Your task to perform on an android device: Do I have any events this weekend? Image 0: 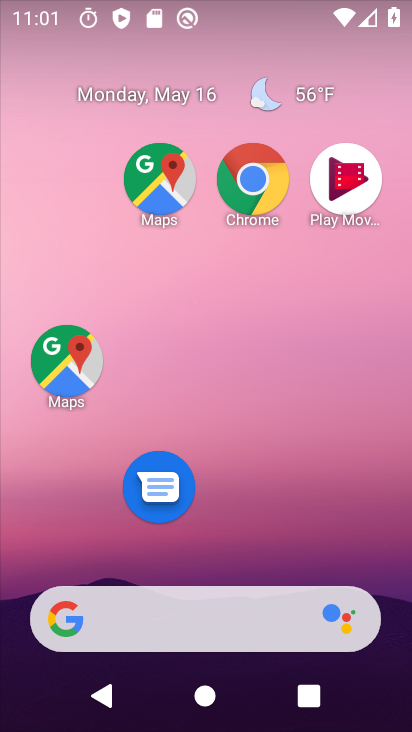
Step 0: click (252, 215)
Your task to perform on an android device: Do I have any events this weekend? Image 1: 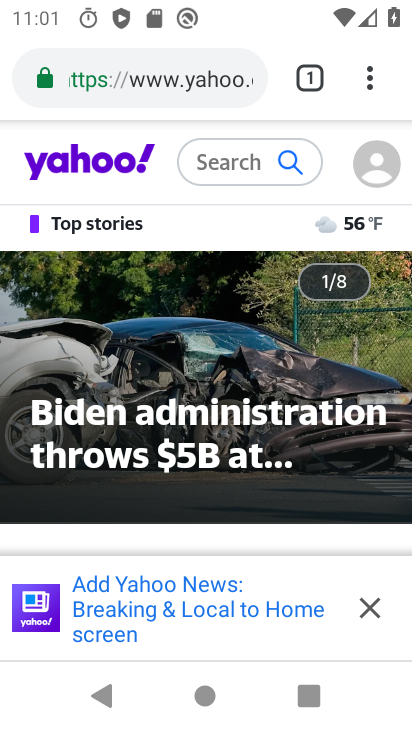
Step 1: press home button
Your task to perform on an android device: Do I have any events this weekend? Image 2: 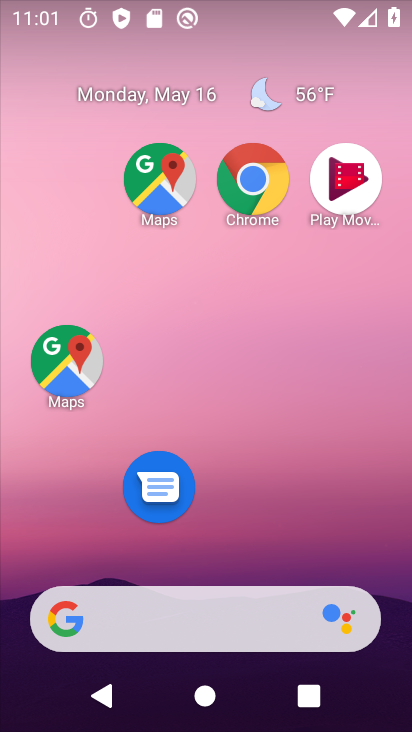
Step 2: drag from (228, 563) to (156, 10)
Your task to perform on an android device: Do I have any events this weekend? Image 3: 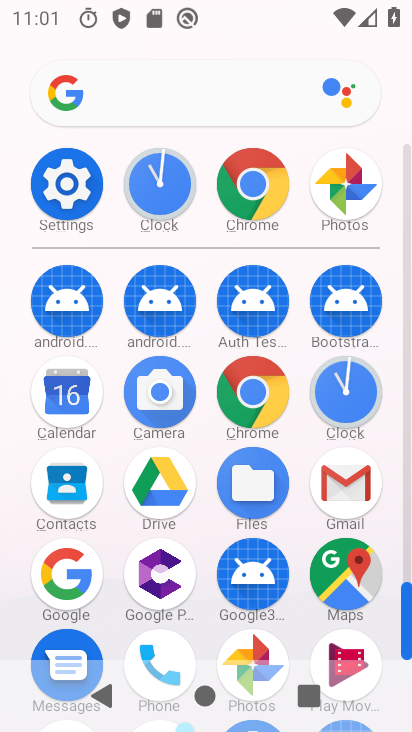
Step 3: click (68, 180)
Your task to perform on an android device: Do I have any events this weekend? Image 4: 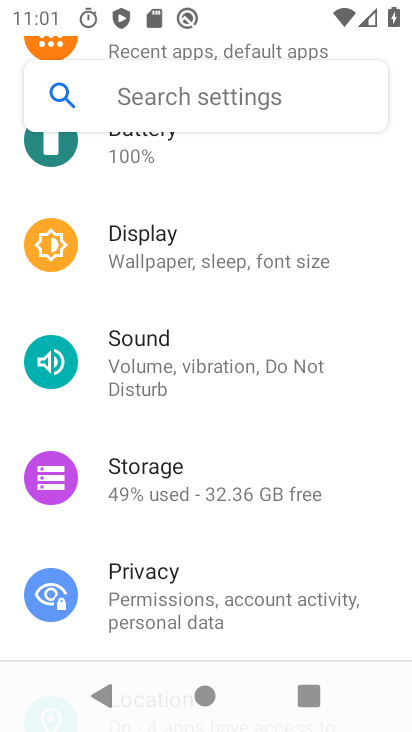
Step 4: drag from (173, 183) to (191, 703)
Your task to perform on an android device: Do I have any events this weekend? Image 5: 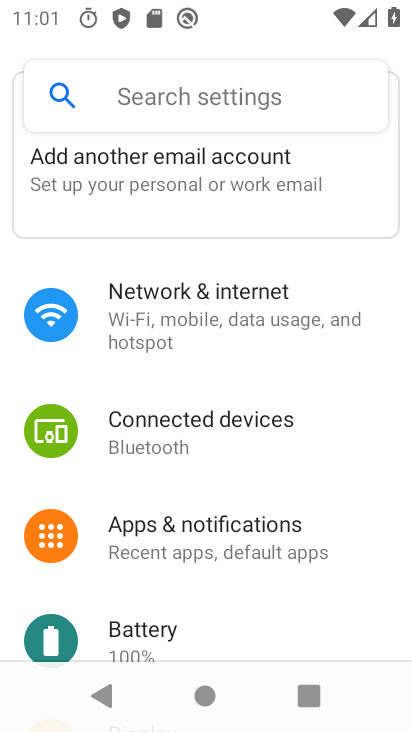
Step 5: click (181, 312)
Your task to perform on an android device: Do I have any events this weekend? Image 6: 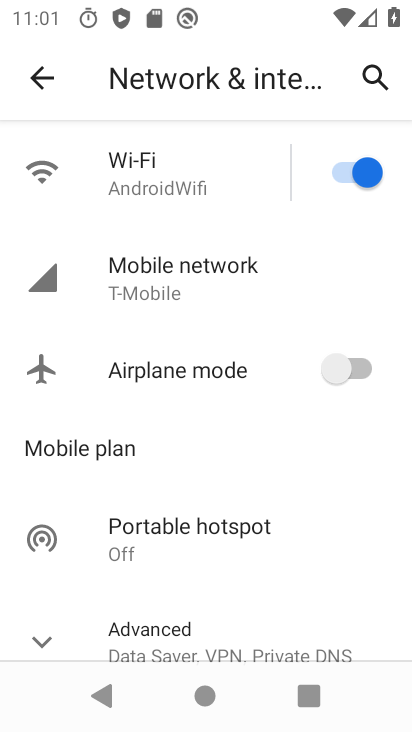
Step 6: task complete